Your task to perform on an android device: check android version Image 0: 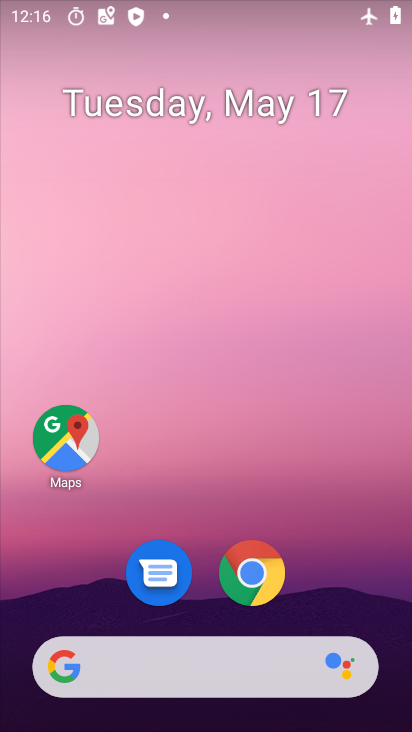
Step 0: drag from (255, 723) to (249, 19)
Your task to perform on an android device: check android version Image 1: 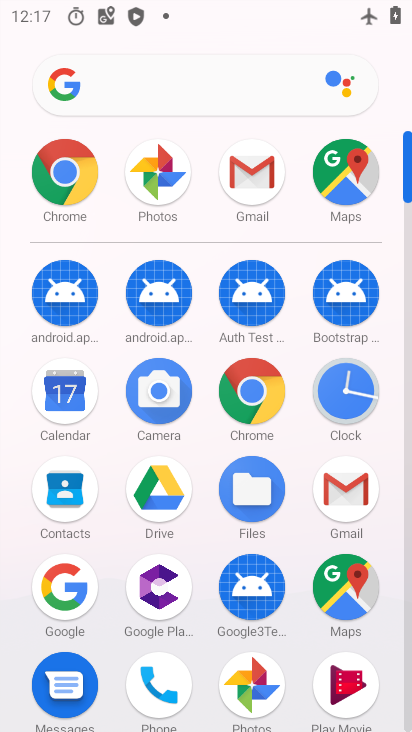
Step 1: drag from (301, 656) to (288, 200)
Your task to perform on an android device: check android version Image 2: 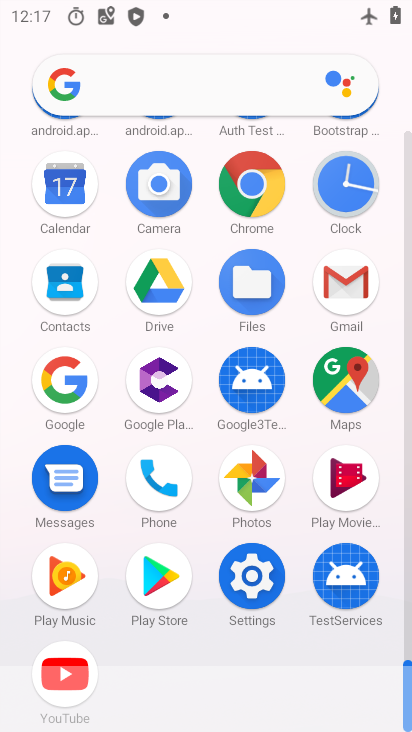
Step 2: click (266, 589)
Your task to perform on an android device: check android version Image 3: 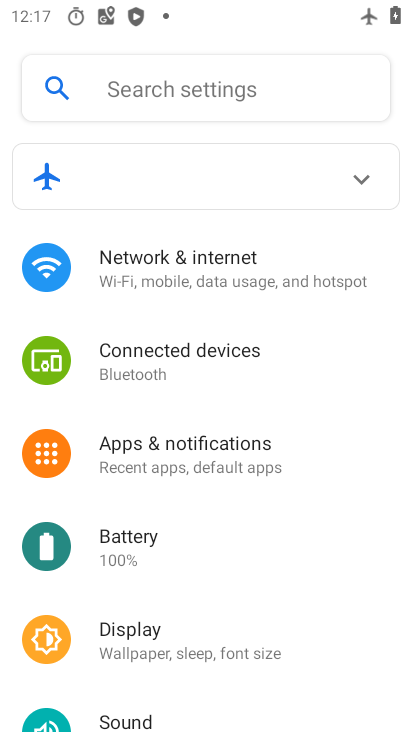
Step 3: drag from (327, 697) to (284, 5)
Your task to perform on an android device: check android version Image 4: 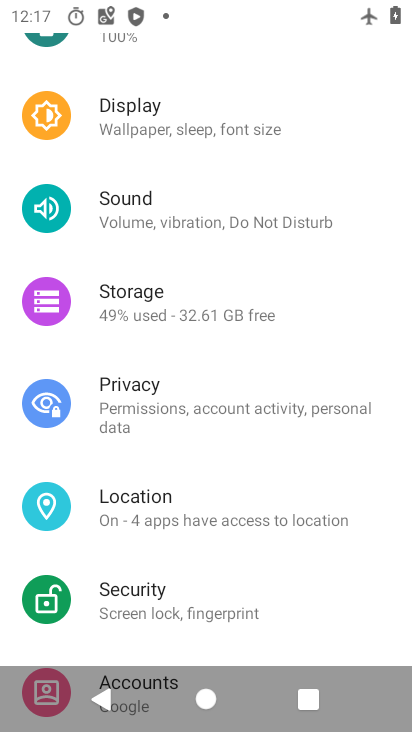
Step 4: drag from (252, 648) to (244, 207)
Your task to perform on an android device: check android version Image 5: 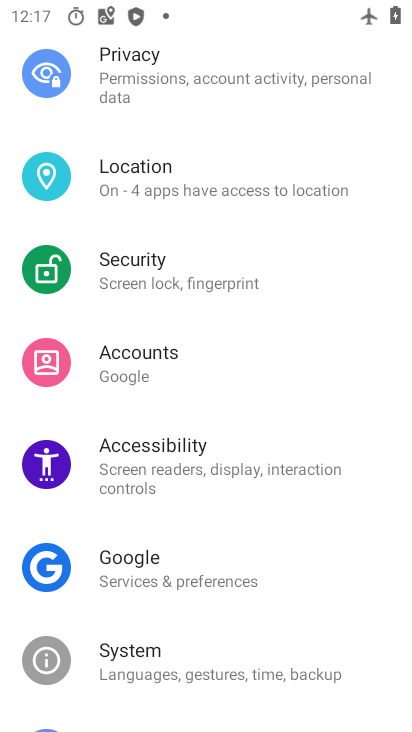
Step 5: drag from (240, 622) to (246, 63)
Your task to perform on an android device: check android version Image 6: 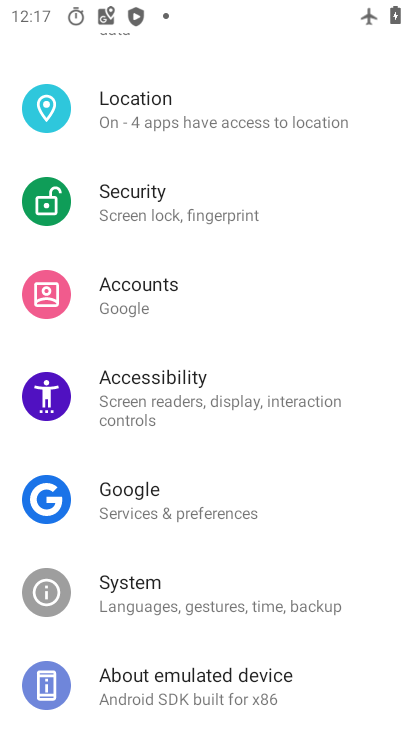
Step 6: click (183, 689)
Your task to perform on an android device: check android version Image 7: 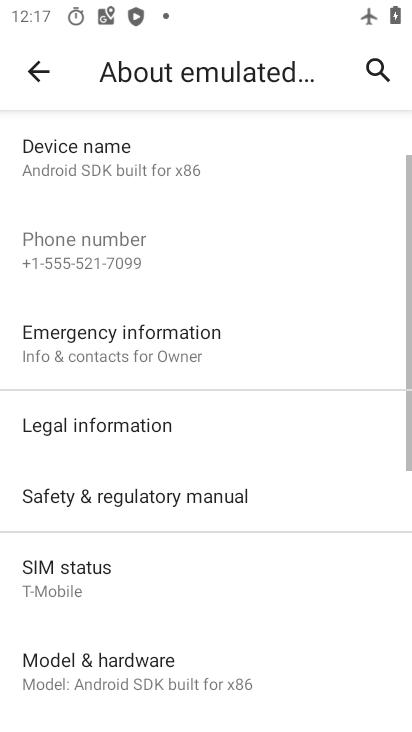
Step 7: task complete